Your task to perform on an android device: Open Android settings Image 0: 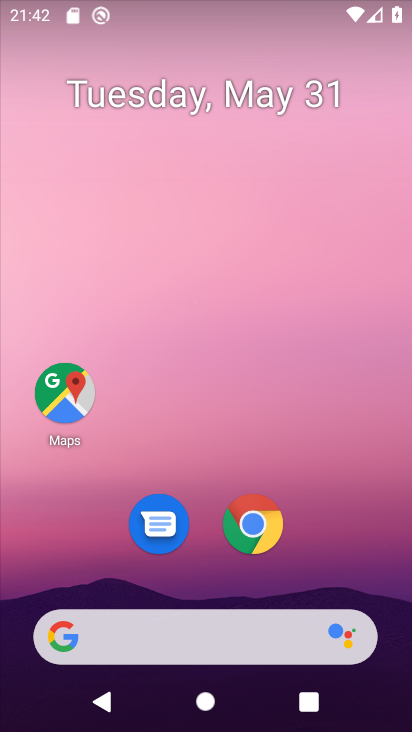
Step 0: drag from (334, 528) to (339, 28)
Your task to perform on an android device: Open Android settings Image 1: 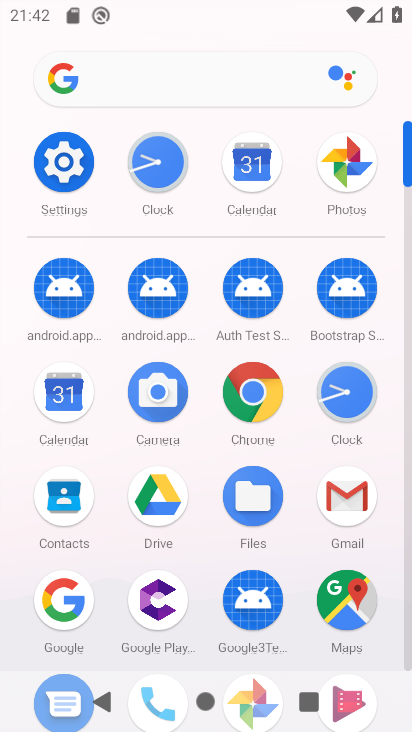
Step 1: click (70, 154)
Your task to perform on an android device: Open Android settings Image 2: 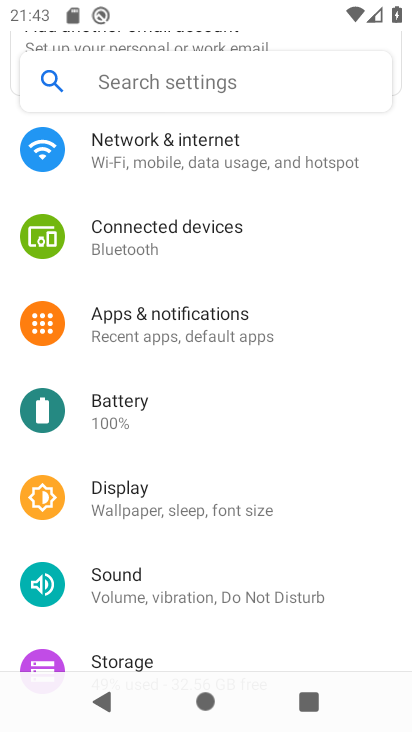
Step 2: drag from (200, 544) to (251, 0)
Your task to perform on an android device: Open Android settings Image 3: 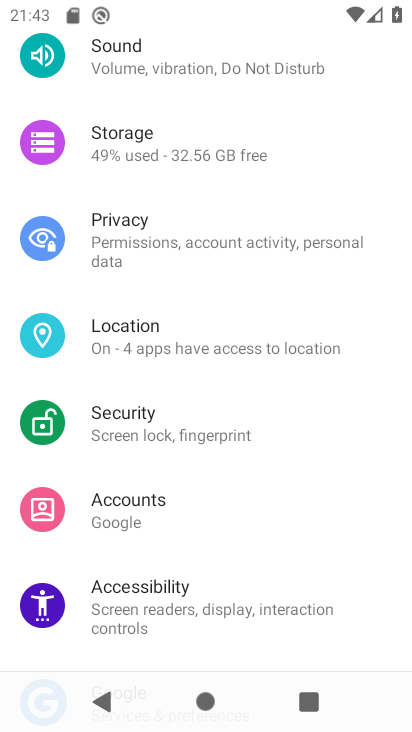
Step 3: drag from (217, 536) to (245, 197)
Your task to perform on an android device: Open Android settings Image 4: 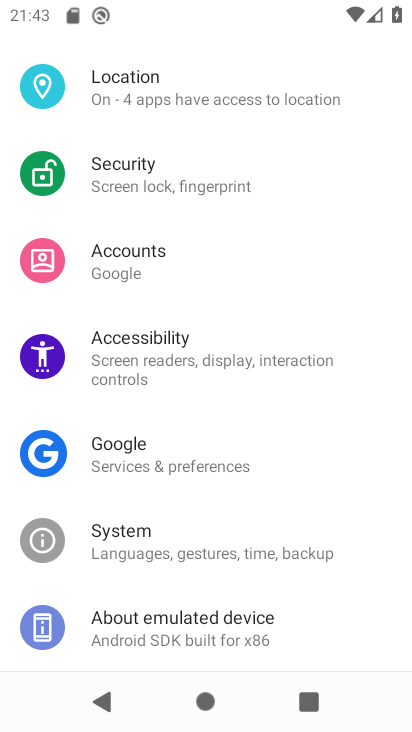
Step 4: click (210, 623)
Your task to perform on an android device: Open Android settings Image 5: 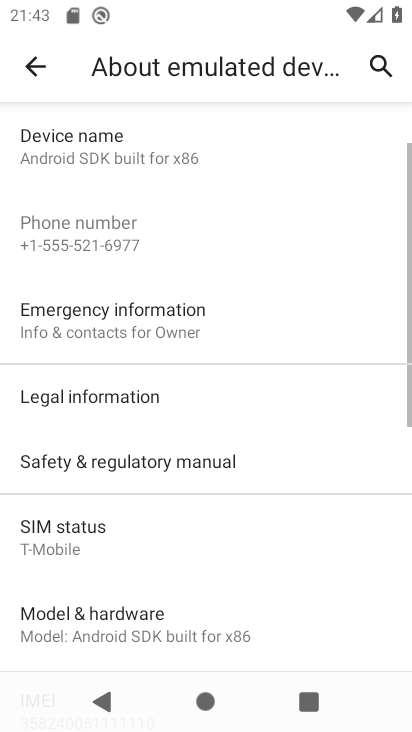
Step 5: task complete